Your task to perform on an android device: move a message to another label in the gmail app Image 0: 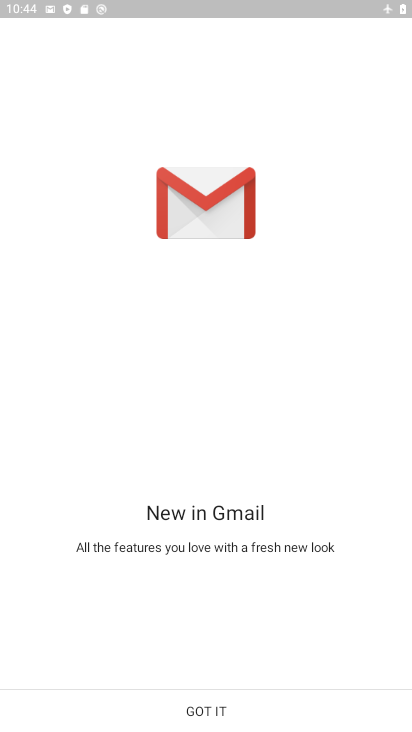
Step 0: press home button
Your task to perform on an android device: move a message to another label in the gmail app Image 1: 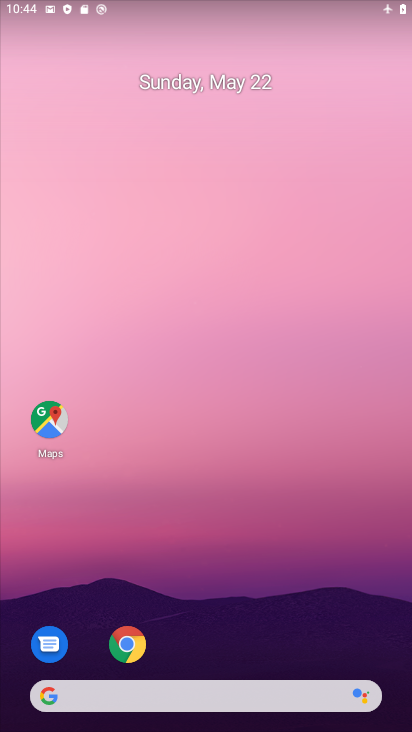
Step 1: drag from (208, 649) to (260, 59)
Your task to perform on an android device: move a message to another label in the gmail app Image 2: 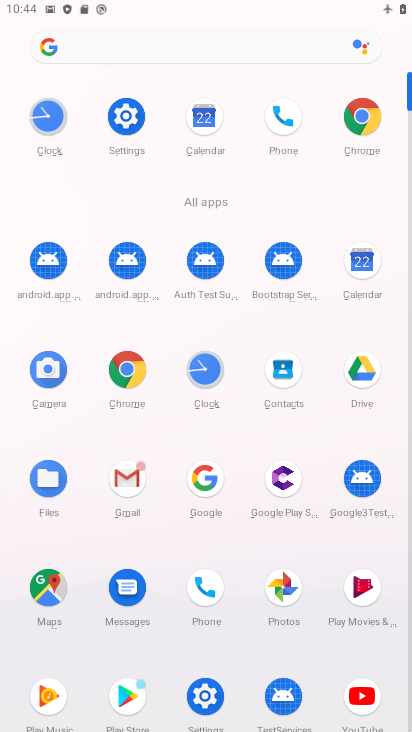
Step 2: click (125, 472)
Your task to perform on an android device: move a message to another label in the gmail app Image 3: 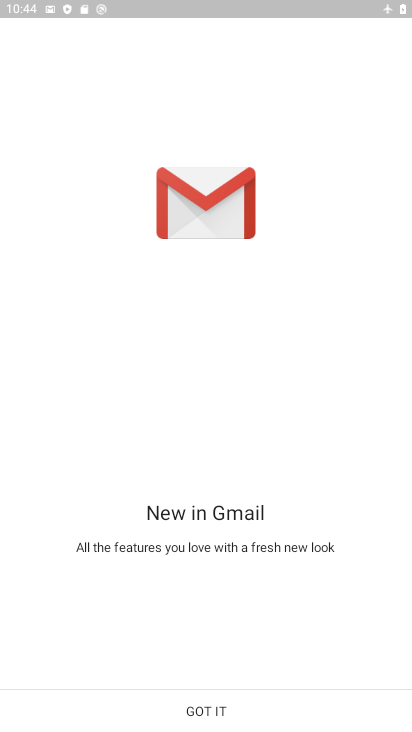
Step 3: click (210, 704)
Your task to perform on an android device: move a message to another label in the gmail app Image 4: 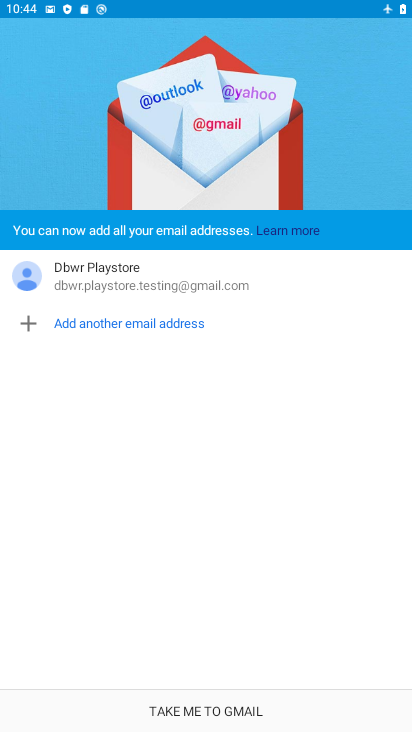
Step 4: click (215, 703)
Your task to perform on an android device: move a message to another label in the gmail app Image 5: 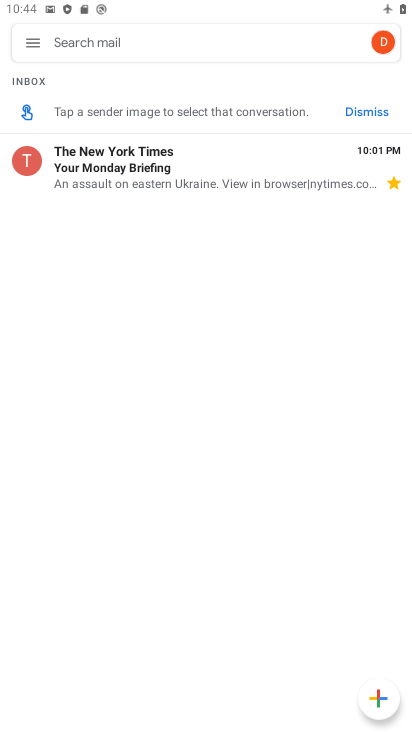
Step 5: click (24, 156)
Your task to perform on an android device: move a message to another label in the gmail app Image 6: 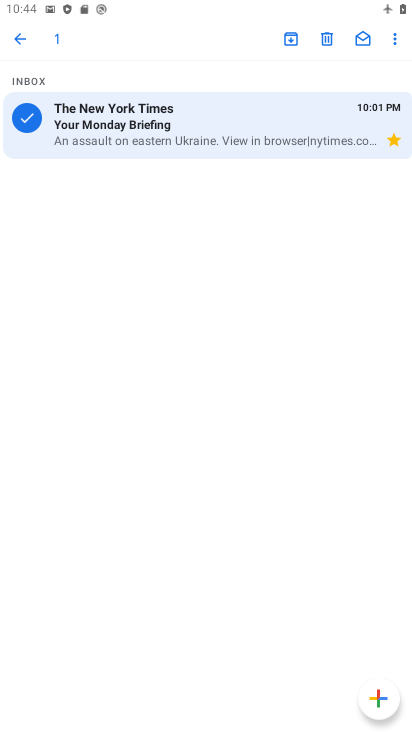
Step 6: click (394, 41)
Your task to perform on an android device: move a message to another label in the gmail app Image 7: 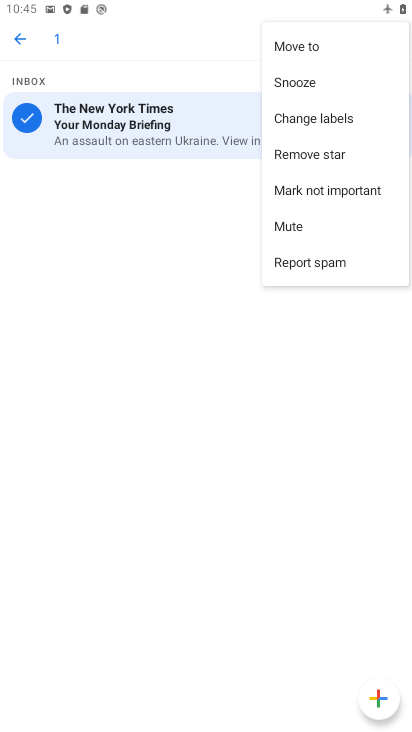
Step 7: click (320, 40)
Your task to perform on an android device: move a message to another label in the gmail app Image 8: 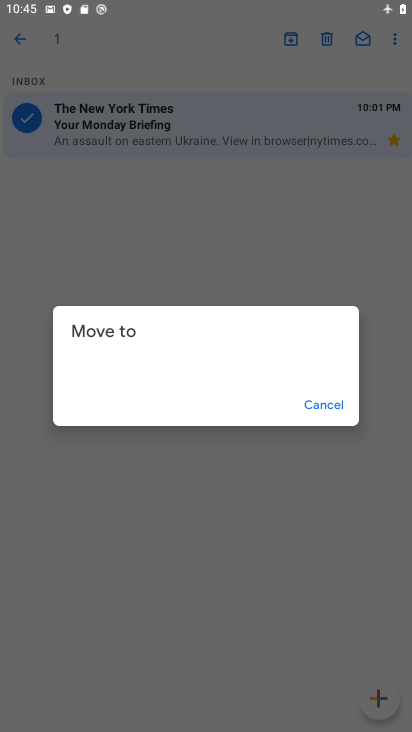
Step 8: task complete